Your task to perform on an android device: Go to Android settings Image 0: 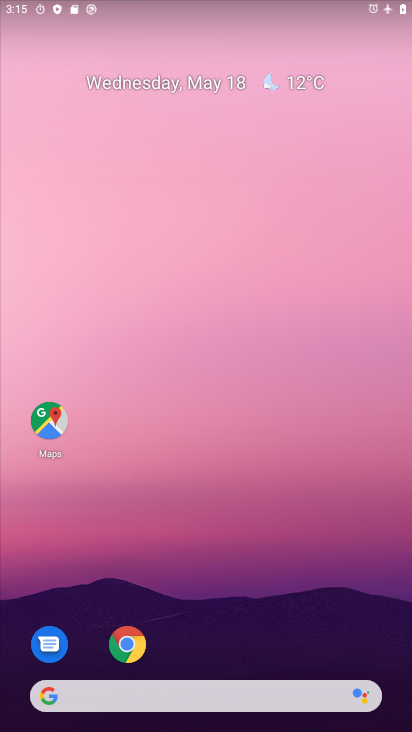
Step 0: drag from (393, 651) to (392, 251)
Your task to perform on an android device: Go to Android settings Image 1: 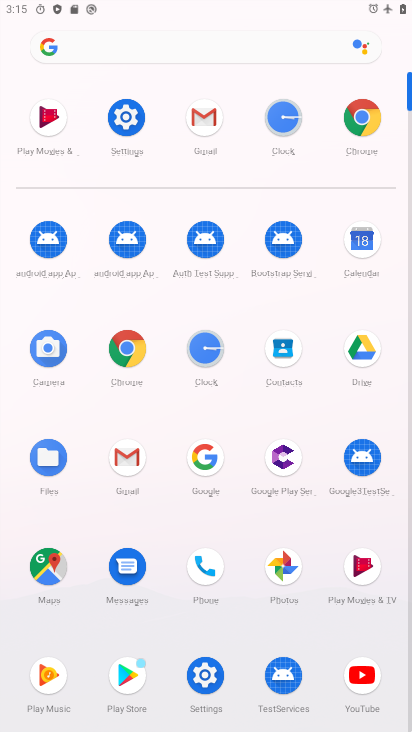
Step 1: click (122, 108)
Your task to perform on an android device: Go to Android settings Image 2: 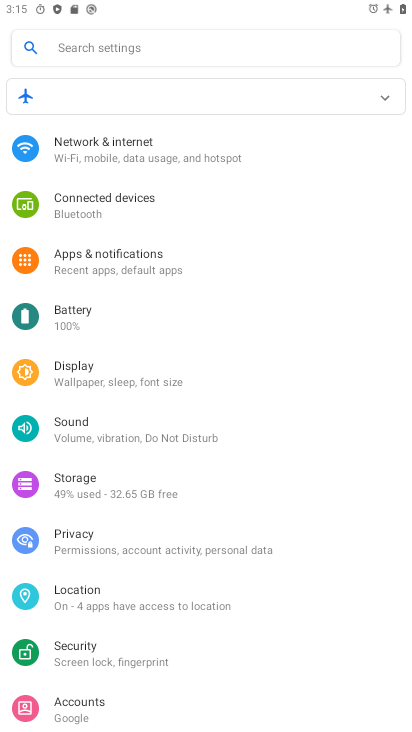
Step 2: task complete